Your task to perform on an android device: What's the weather today? Image 0: 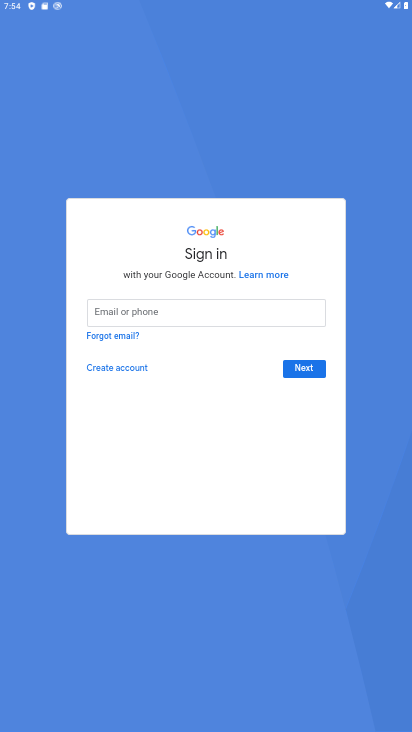
Step 0: press home button
Your task to perform on an android device: What's the weather today? Image 1: 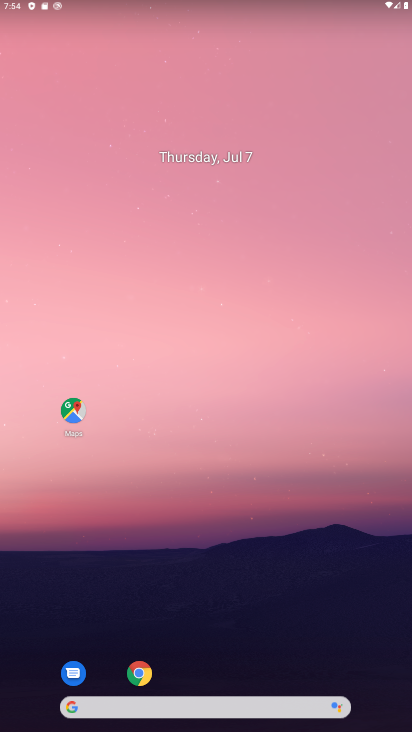
Step 1: drag from (225, 646) to (202, 120)
Your task to perform on an android device: What's the weather today? Image 2: 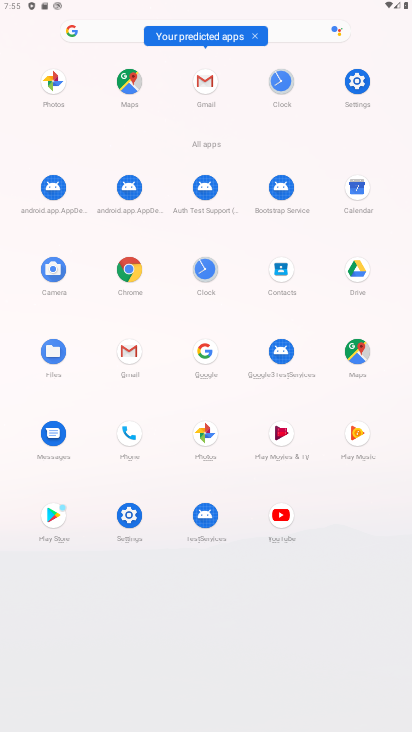
Step 2: drag from (174, 237) to (180, 361)
Your task to perform on an android device: What's the weather today? Image 3: 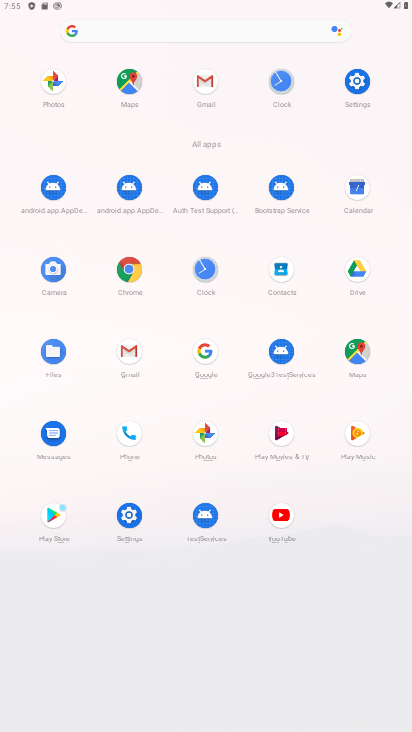
Step 3: click (205, 351)
Your task to perform on an android device: What's the weather today? Image 4: 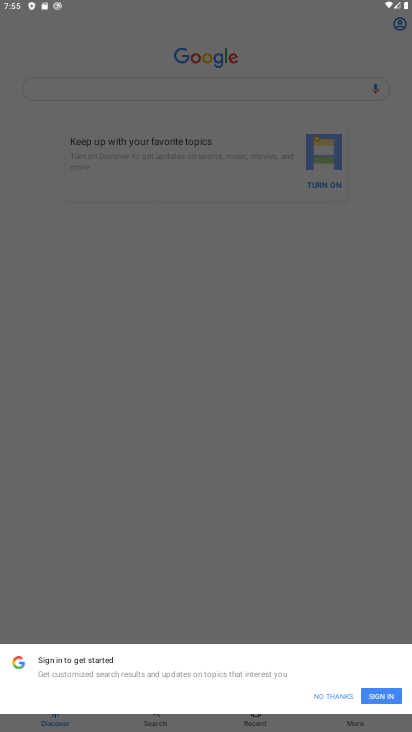
Step 4: task complete